Your task to perform on an android device: change your default location settings in chrome Image 0: 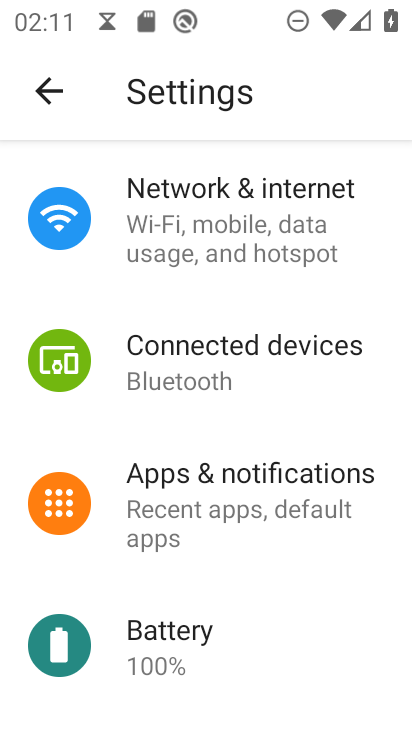
Step 0: drag from (197, 473) to (228, 264)
Your task to perform on an android device: change your default location settings in chrome Image 1: 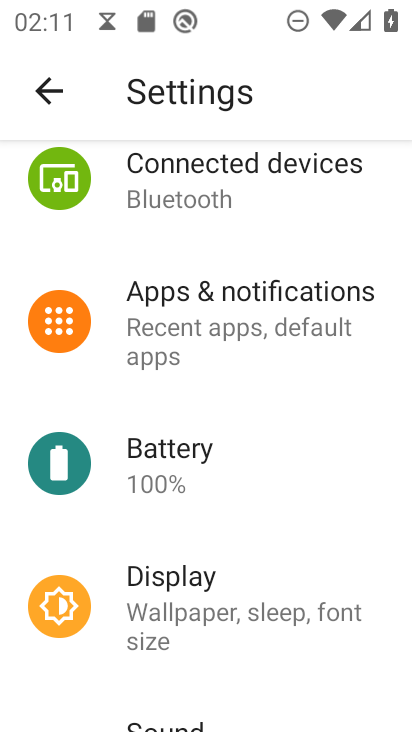
Step 1: press home button
Your task to perform on an android device: change your default location settings in chrome Image 2: 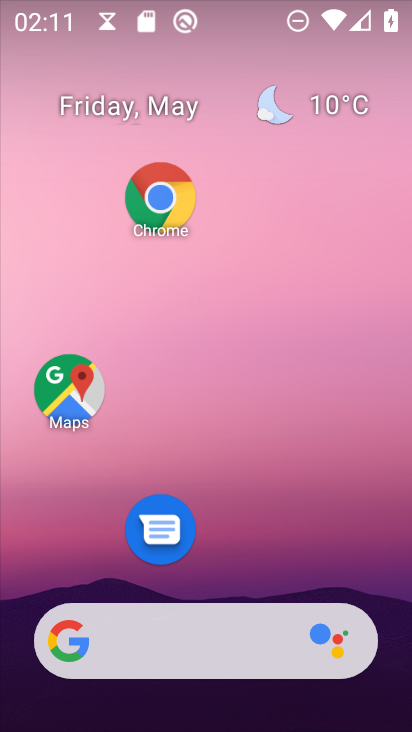
Step 2: click (156, 191)
Your task to perform on an android device: change your default location settings in chrome Image 3: 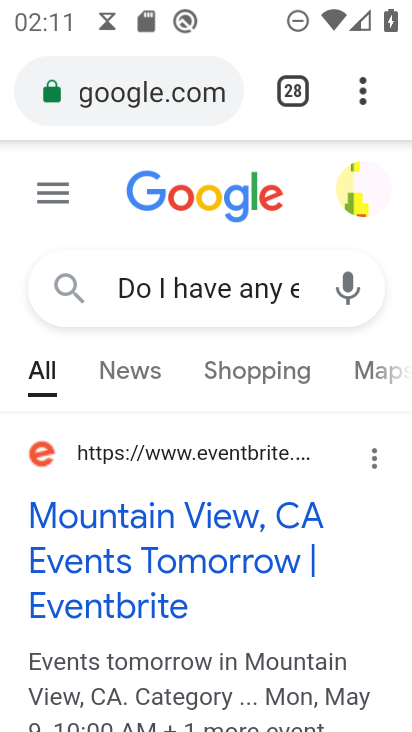
Step 3: click (364, 88)
Your task to perform on an android device: change your default location settings in chrome Image 4: 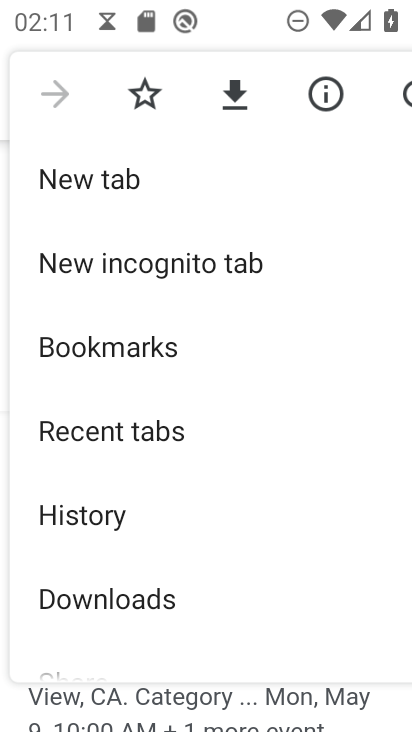
Step 4: drag from (120, 589) to (205, 203)
Your task to perform on an android device: change your default location settings in chrome Image 5: 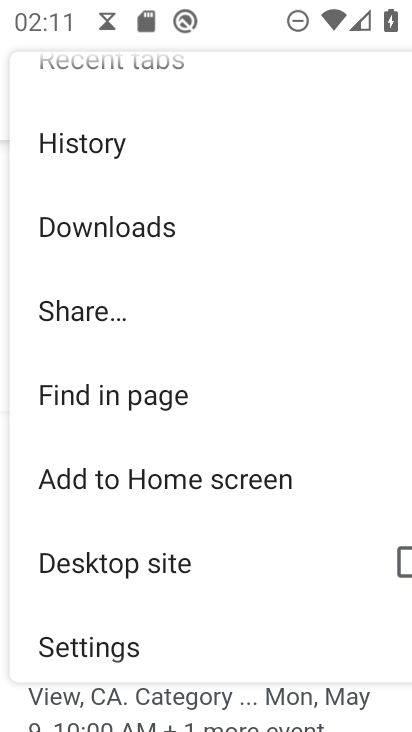
Step 5: click (73, 651)
Your task to perform on an android device: change your default location settings in chrome Image 6: 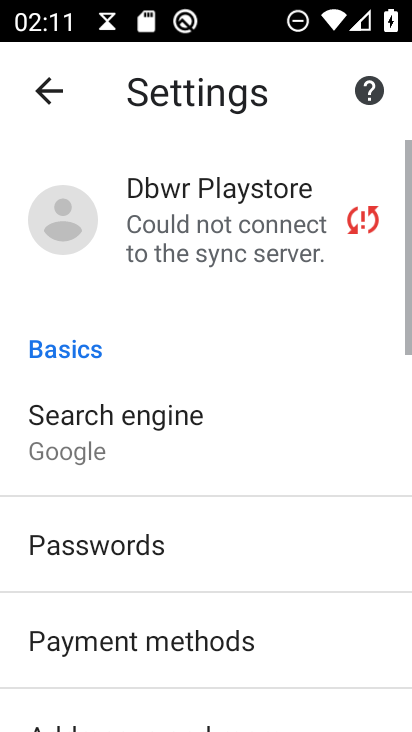
Step 6: drag from (235, 492) to (331, 226)
Your task to perform on an android device: change your default location settings in chrome Image 7: 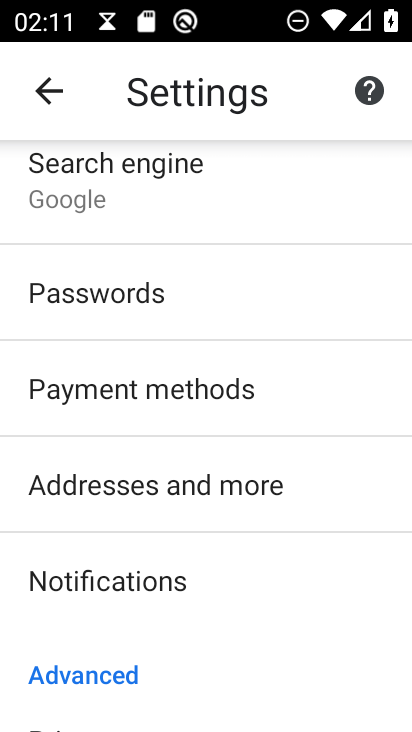
Step 7: drag from (173, 580) to (238, 169)
Your task to perform on an android device: change your default location settings in chrome Image 8: 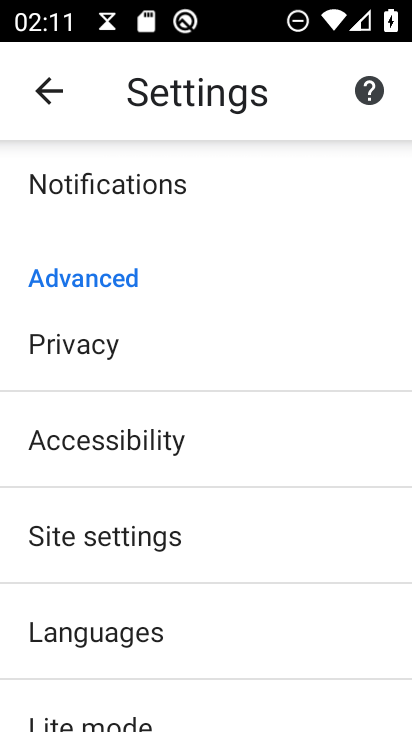
Step 8: click (79, 616)
Your task to perform on an android device: change your default location settings in chrome Image 9: 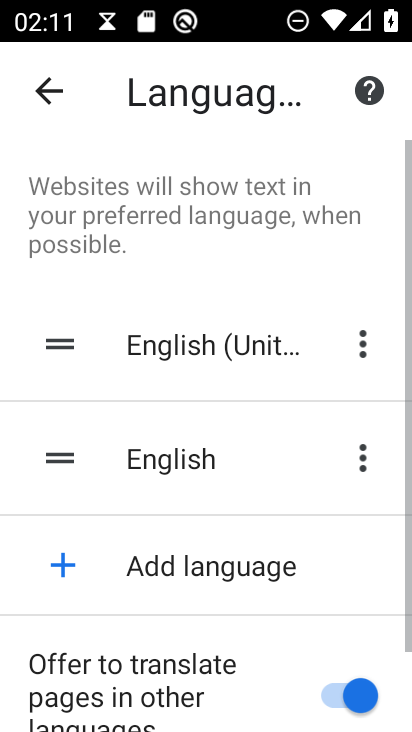
Step 9: press back button
Your task to perform on an android device: change your default location settings in chrome Image 10: 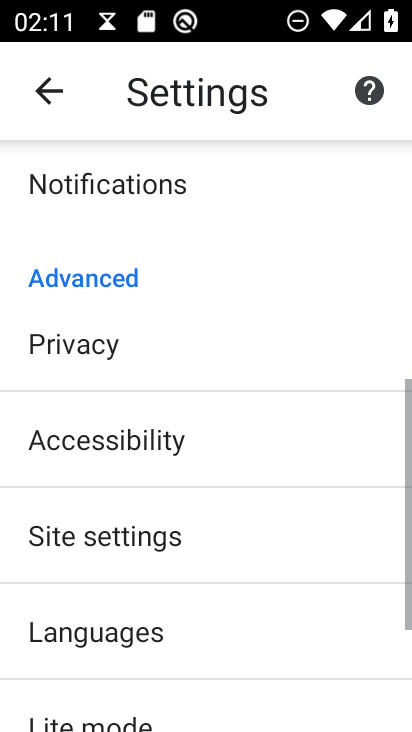
Step 10: click (166, 520)
Your task to perform on an android device: change your default location settings in chrome Image 11: 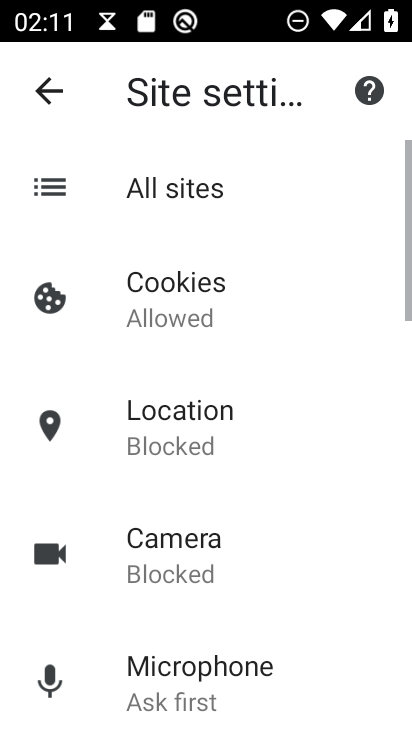
Step 11: click (168, 428)
Your task to perform on an android device: change your default location settings in chrome Image 12: 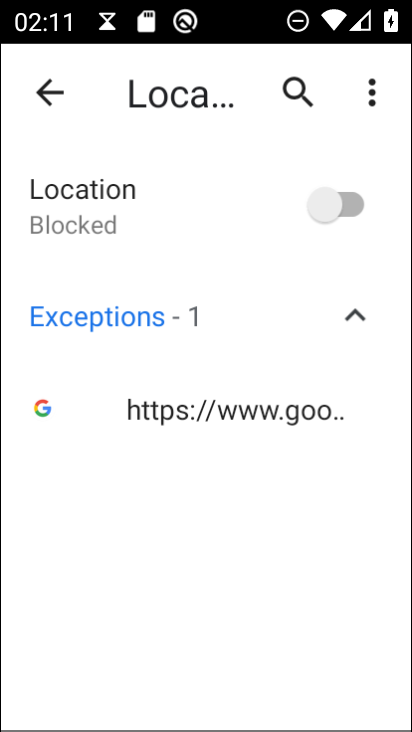
Step 12: click (331, 190)
Your task to perform on an android device: change your default location settings in chrome Image 13: 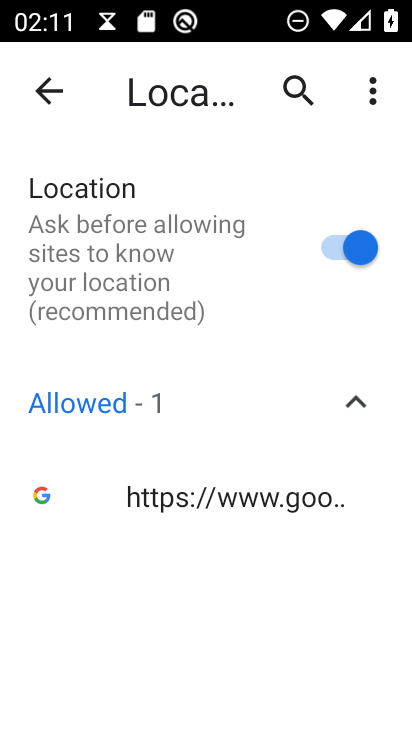
Step 13: task complete